Your task to perform on an android device: Search for a small bookcase on Ikea.com Image 0: 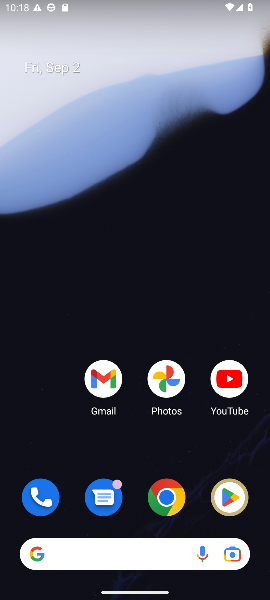
Step 0: click (160, 502)
Your task to perform on an android device: Search for a small bookcase on Ikea.com Image 1: 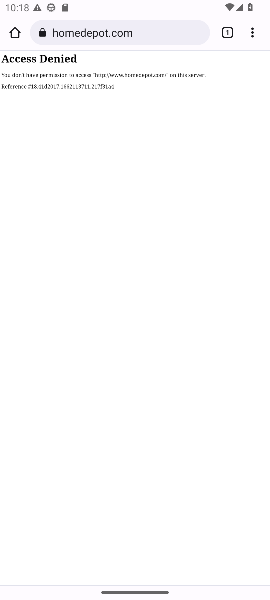
Step 1: click (152, 32)
Your task to perform on an android device: Search for a small bookcase on Ikea.com Image 2: 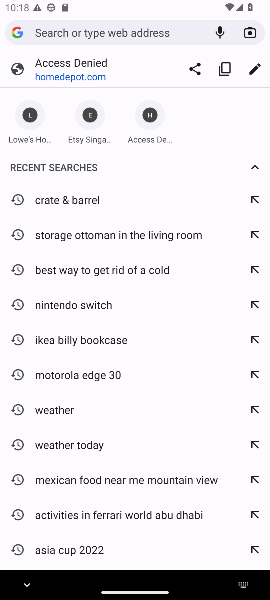
Step 2: type "ikea.com"
Your task to perform on an android device: Search for a small bookcase on Ikea.com Image 3: 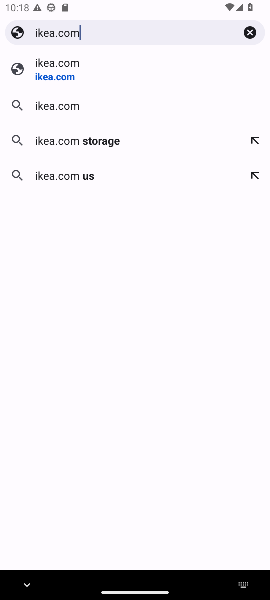
Step 3: click (69, 65)
Your task to perform on an android device: Search for a small bookcase on Ikea.com Image 4: 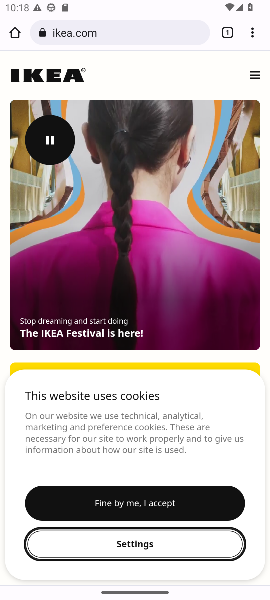
Step 4: click (158, 505)
Your task to perform on an android device: Search for a small bookcase on Ikea.com Image 5: 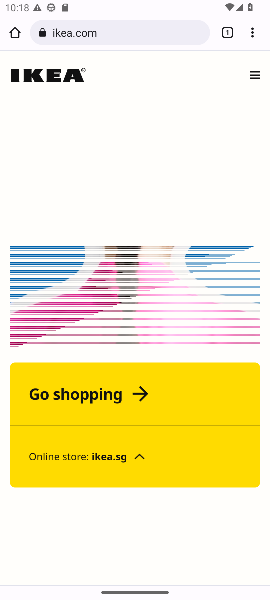
Step 5: click (260, 77)
Your task to perform on an android device: Search for a small bookcase on Ikea.com Image 6: 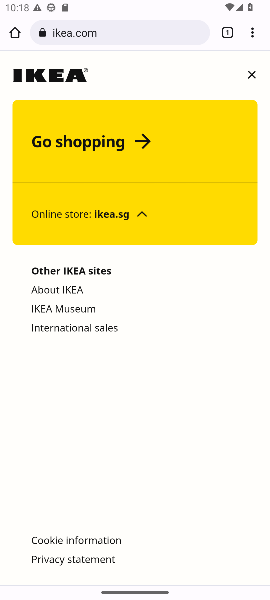
Step 6: click (128, 142)
Your task to perform on an android device: Search for a small bookcase on Ikea.com Image 7: 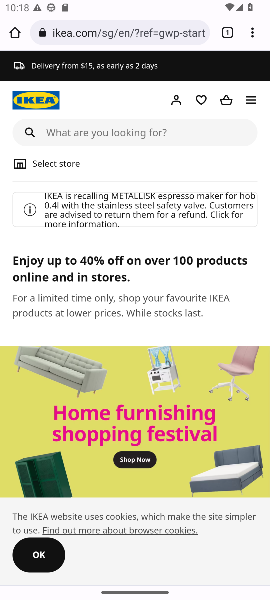
Step 7: click (181, 139)
Your task to perform on an android device: Search for a small bookcase on Ikea.com Image 8: 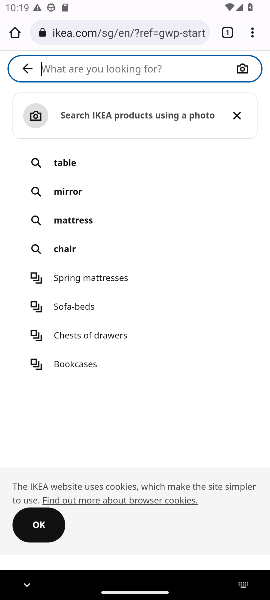
Step 8: type "small bookcase"
Your task to perform on an android device: Search for a small bookcase on Ikea.com Image 9: 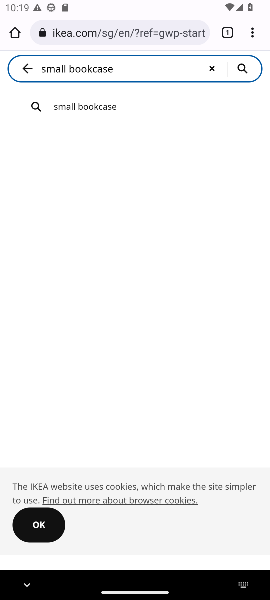
Step 9: press enter
Your task to perform on an android device: Search for a small bookcase on Ikea.com Image 10: 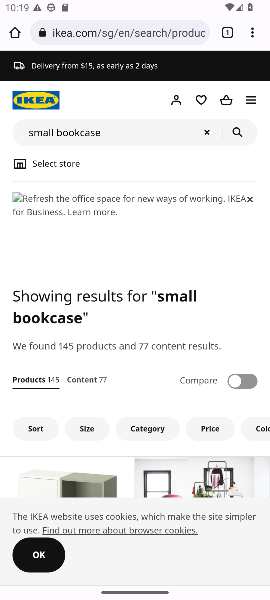
Step 10: task complete